Your task to perform on an android device: turn on improve location accuracy Image 0: 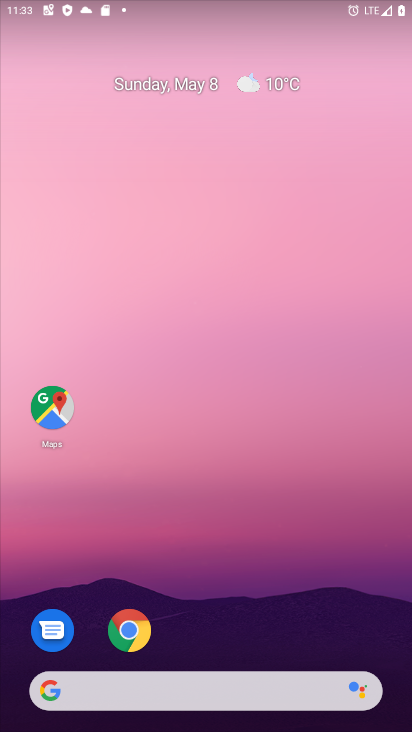
Step 0: drag from (384, 651) to (246, 58)
Your task to perform on an android device: turn on improve location accuracy Image 1: 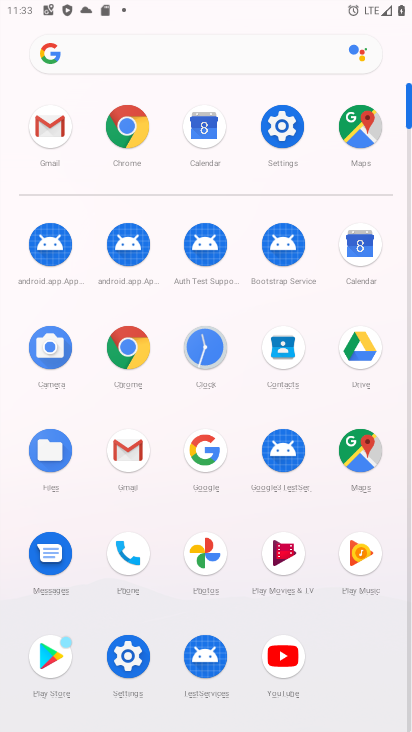
Step 1: click (112, 673)
Your task to perform on an android device: turn on improve location accuracy Image 2: 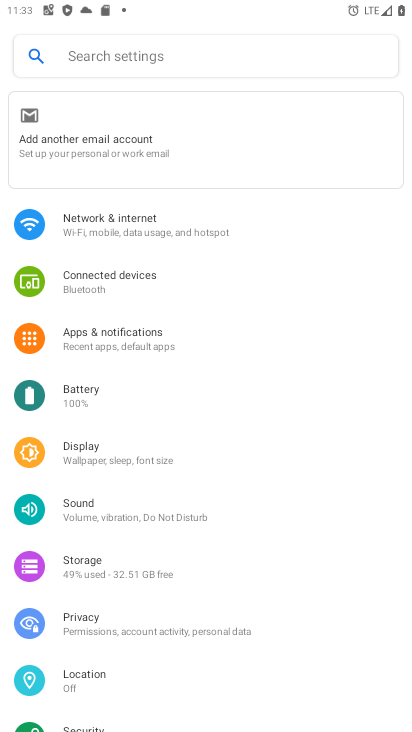
Step 2: click (136, 681)
Your task to perform on an android device: turn on improve location accuracy Image 3: 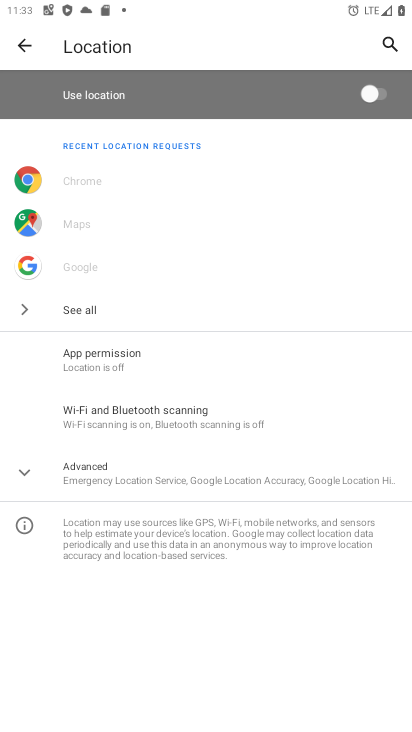
Step 3: click (73, 468)
Your task to perform on an android device: turn on improve location accuracy Image 4: 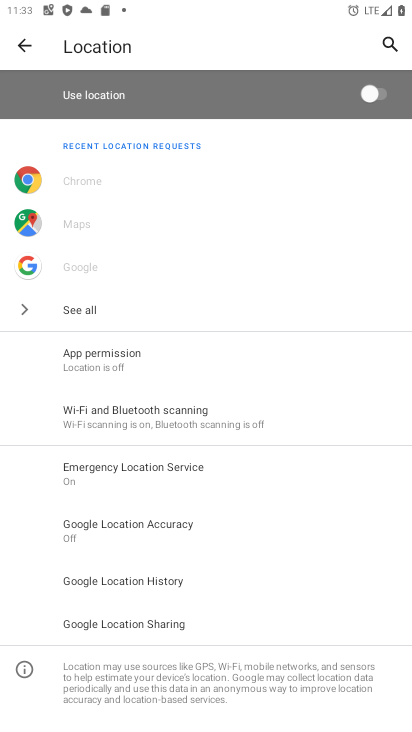
Step 4: click (182, 528)
Your task to perform on an android device: turn on improve location accuracy Image 5: 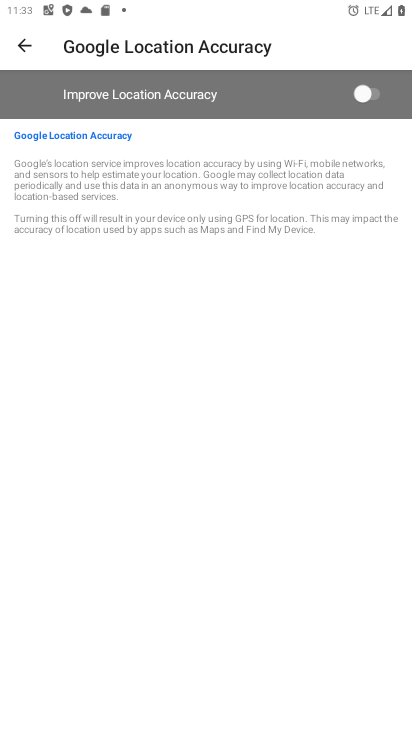
Step 5: click (323, 89)
Your task to perform on an android device: turn on improve location accuracy Image 6: 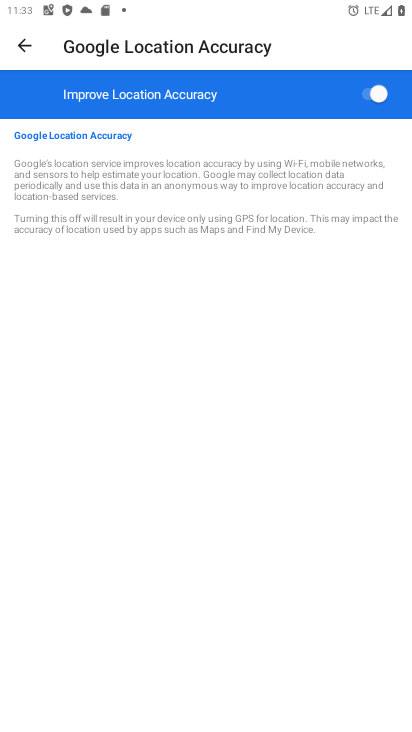
Step 6: task complete